Your task to perform on an android device: change the clock display to digital Image 0: 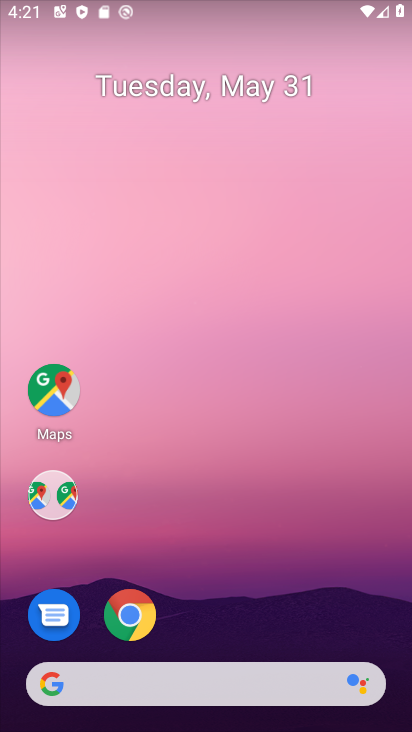
Step 0: drag from (215, 409) to (197, 36)
Your task to perform on an android device: change the clock display to digital Image 1: 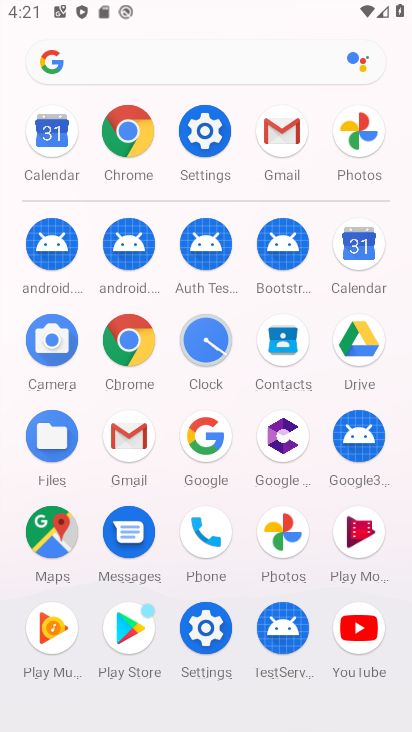
Step 1: click (205, 340)
Your task to perform on an android device: change the clock display to digital Image 2: 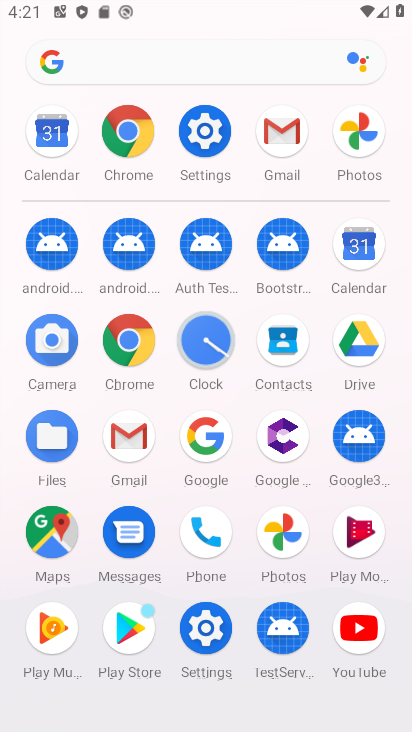
Step 2: click (208, 339)
Your task to perform on an android device: change the clock display to digital Image 3: 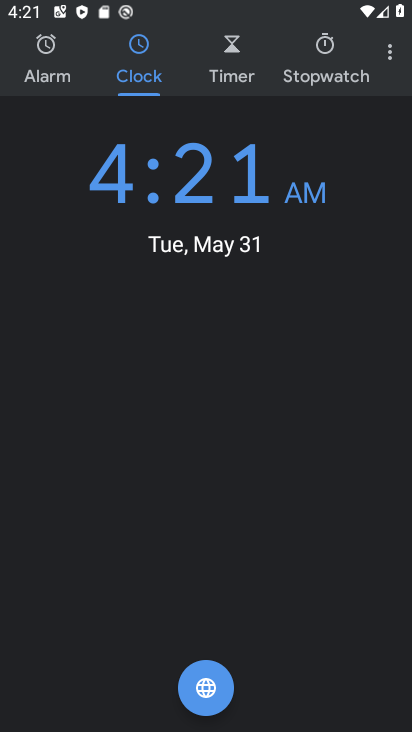
Step 3: click (398, 51)
Your task to perform on an android device: change the clock display to digital Image 4: 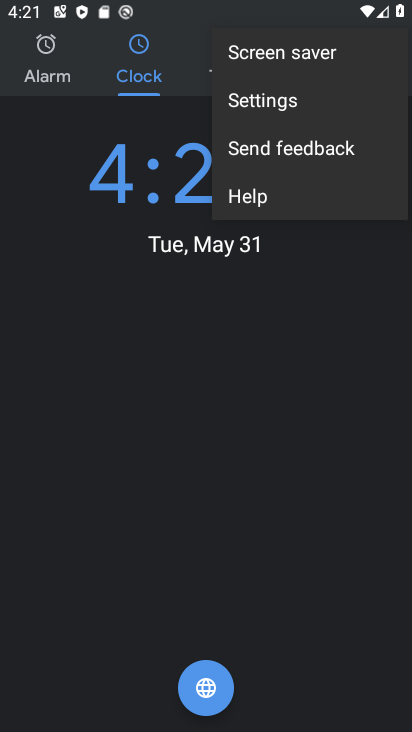
Step 4: click (260, 95)
Your task to perform on an android device: change the clock display to digital Image 5: 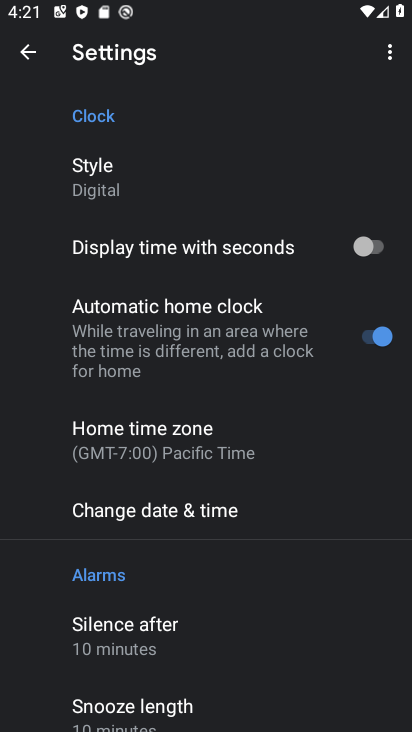
Step 5: click (159, 163)
Your task to perform on an android device: change the clock display to digital Image 6: 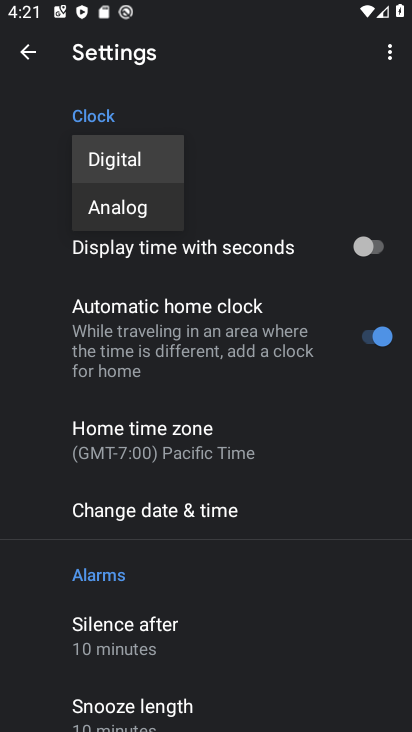
Step 6: click (129, 157)
Your task to perform on an android device: change the clock display to digital Image 7: 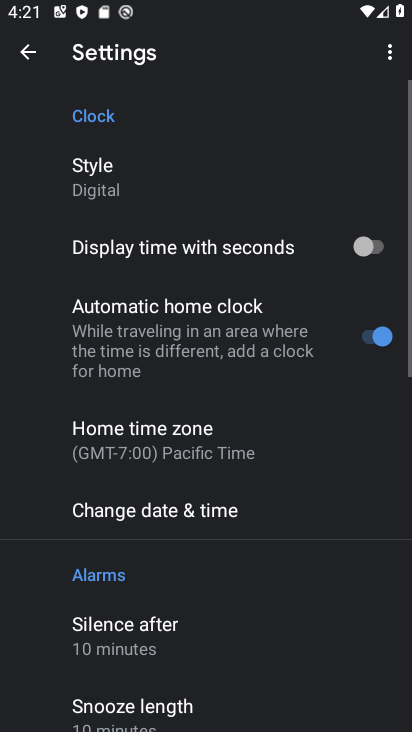
Step 7: task complete